Your task to perform on an android device: empty trash in google photos Image 0: 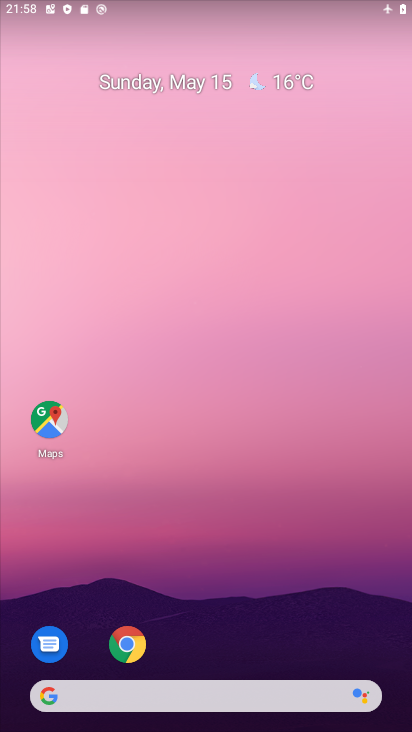
Step 0: drag from (256, 571) to (271, 208)
Your task to perform on an android device: empty trash in google photos Image 1: 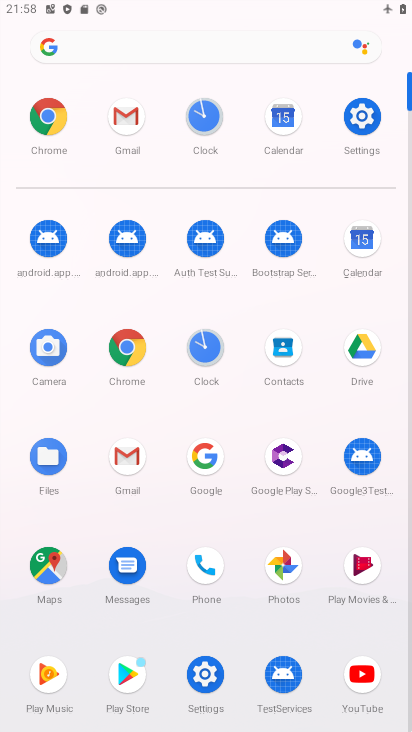
Step 1: click (284, 572)
Your task to perform on an android device: empty trash in google photos Image 2: 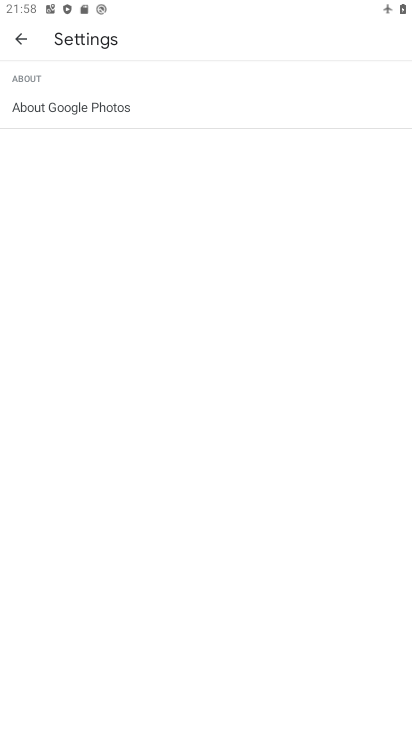
Step 2: click (21, 32)
Your task to perform on an android device: empty trash in google photos Image 3: 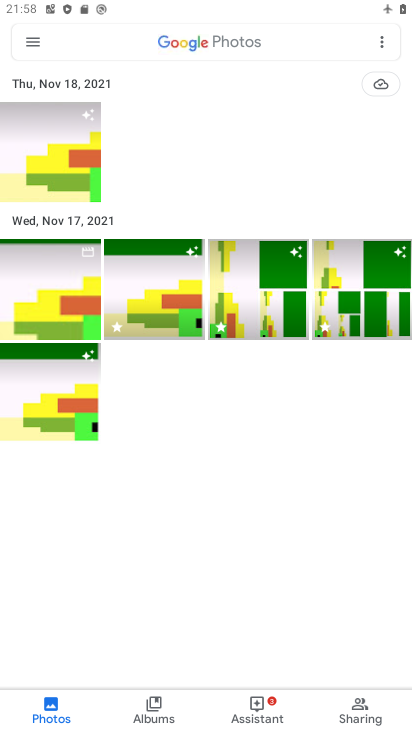
Step 3: click (37, 38)
Your task to perform on an android device: empty trash in google photos Image 4: 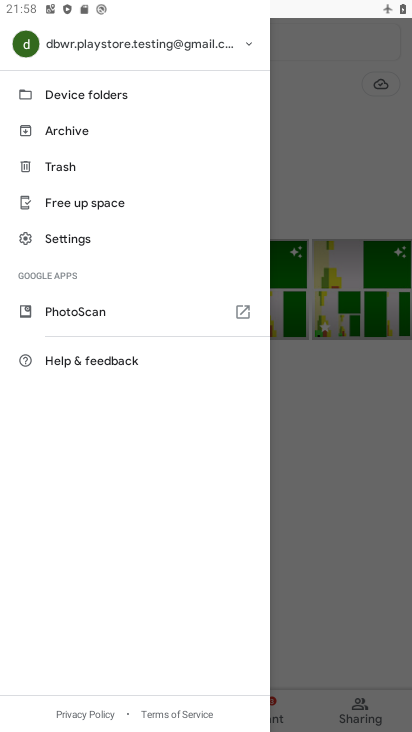
Step 4: click (58, 156)
Your task to perform on an android device: empty trash in google photos Image 5: 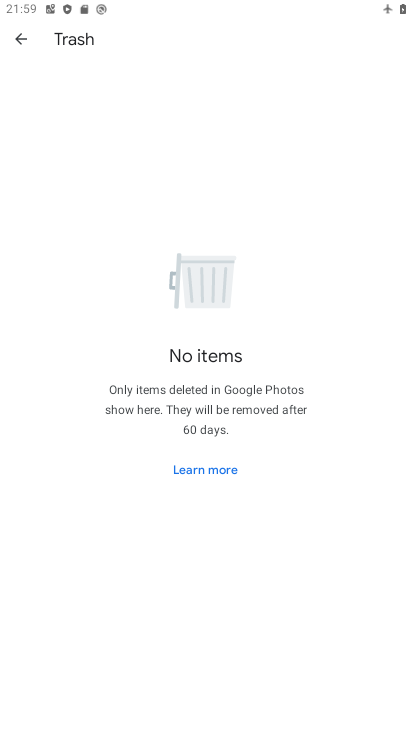
Step 5: task complete